Your task to perform on an android device: Do I have any events tomorrow? Image 0: 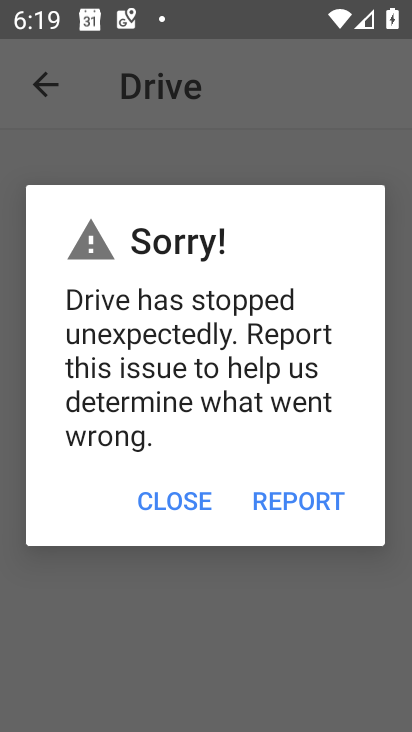
Step 0: press home button
Your task to perform on an android device: Do I have any events tomorrow? Image 1: 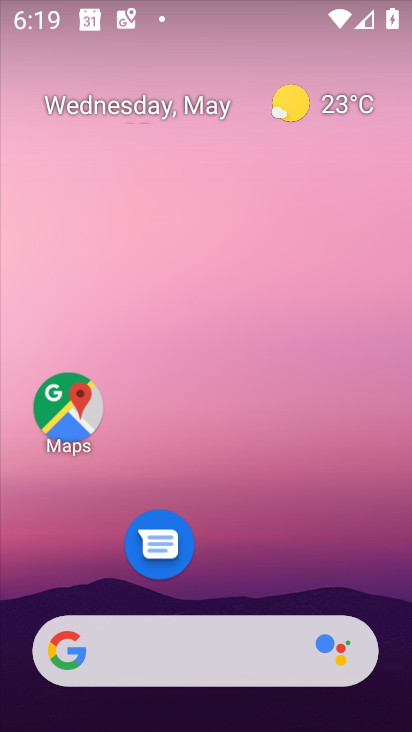
Step 1: drag from (252, 494) to (188, 3)
Your task to perform on an android device: Do I have any events tomorrow? Image 2: 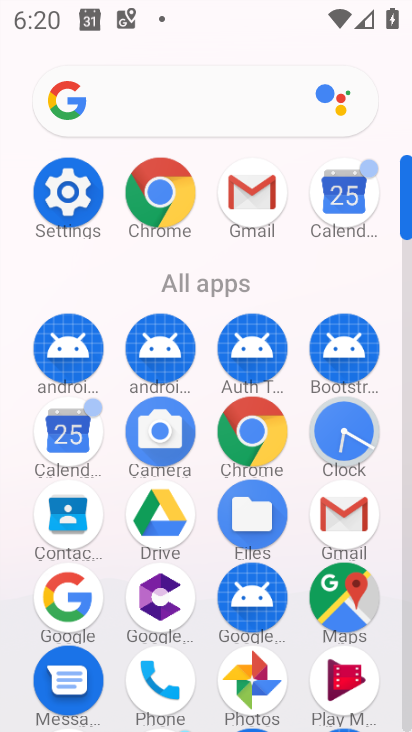
Step 2: click (60, 431)
Your task to perform on an android device: Do I have any events tomorrow? Image 3: 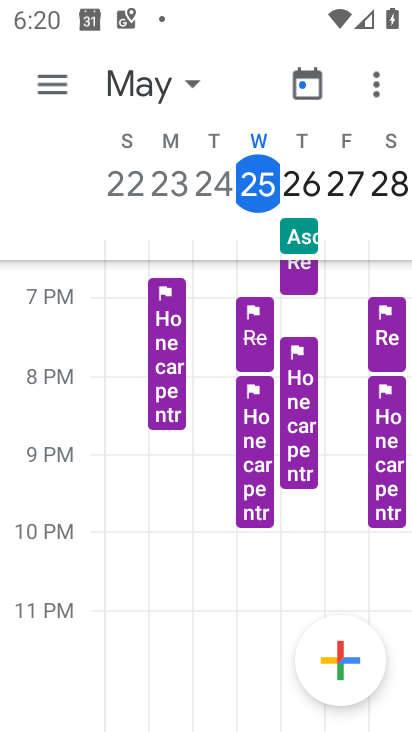
Step 3: click (301, 182)
Your task to perform on an android device: Do I have any events tomorrow? Image 4: 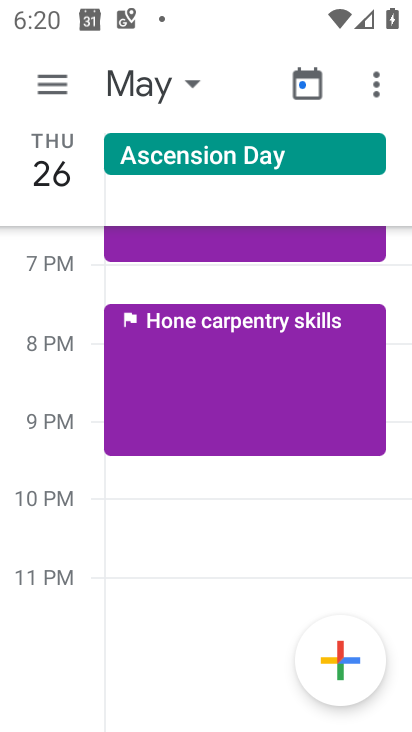
Step 4: task complete